Your task to perform on an android device: What's on my calendar today? Image 0: 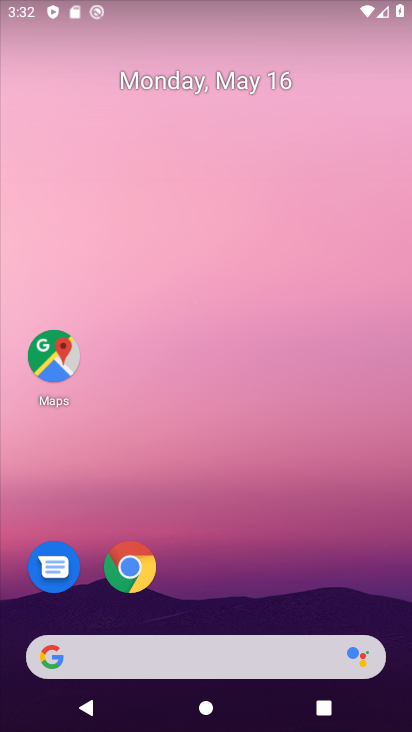
Step 0: drag from (248, 583) to (304, 41)
Your task to perform on an android device: What's on my calendar today? Image 1: 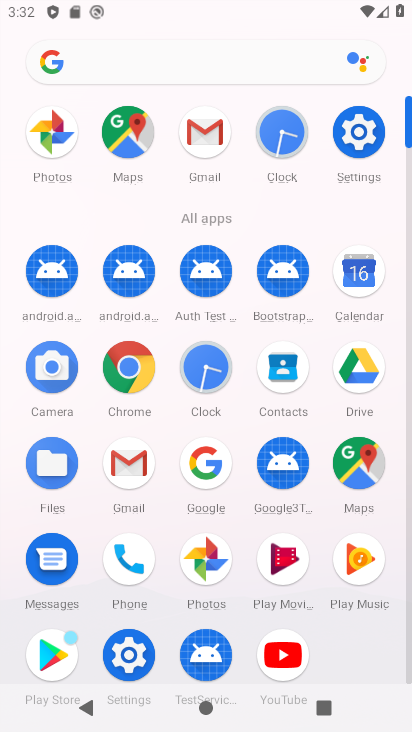
Step 1: click (350, 276)
Your task to perform on an android device: What's on my calendar today? Image 2: 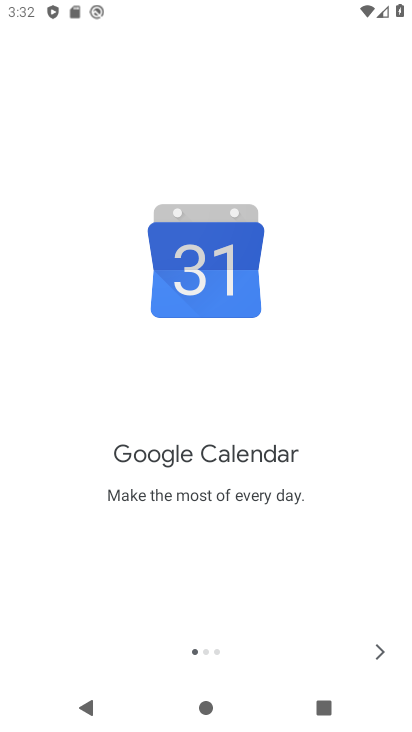
Step 2: click (373, 644)
Your task to perform on an android device: What's on my calendar today? Image 3: 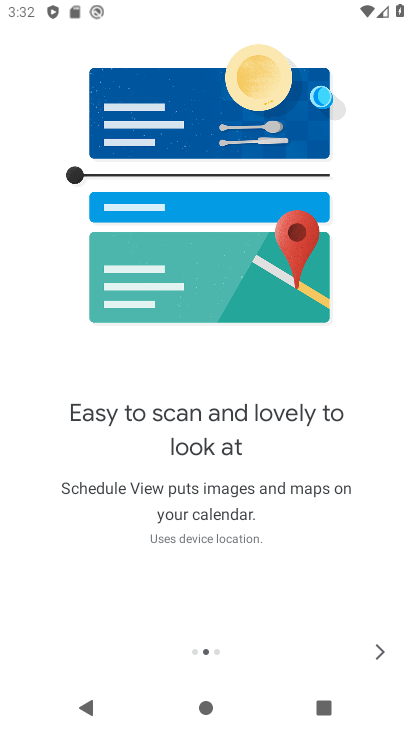
Step 3: click (373, 644)
Your task to perform on an android device: What's on my calendar today? Image 4: 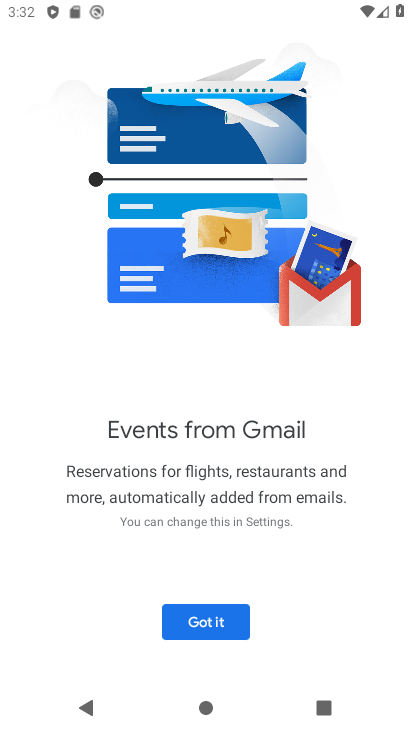
Step 4: click (210, 623)
Your task to perform on an android device: What's on my calendar today? Image 5: 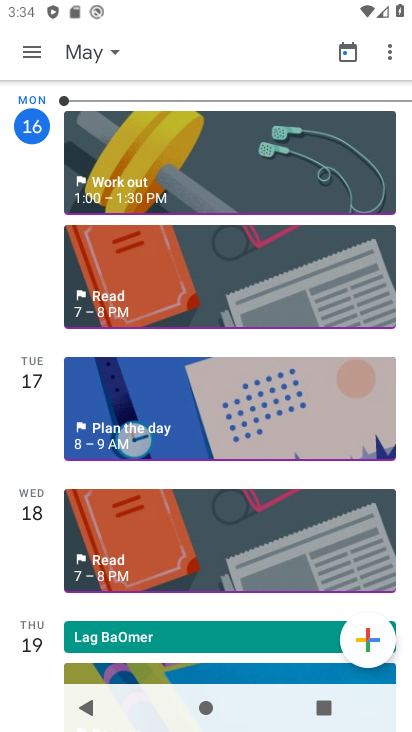
Step 5: click (115, 46)
Your task to perform on an android device: What's on my calendar today? Image 6: 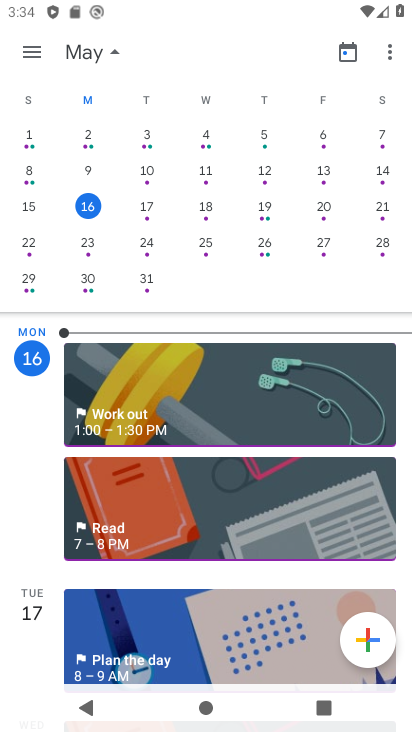
Step 6: task complete